Your task to perform on an android device: What's the weather going to be this weekend? Image 0: 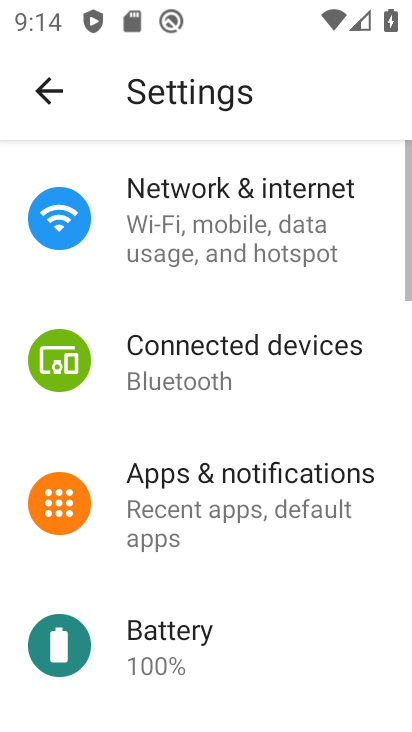
Step 0: press home button
Your task to perform on an android device: What's the weather going to be this weekend? Image 1: 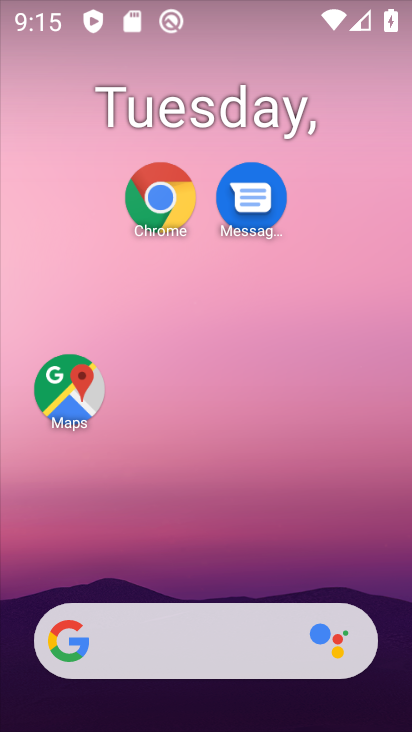
Step 1: drag from (221, 575) to (161, 16)
Your task to perform on an android device: What's the weather going to be this weekend? Image 2: 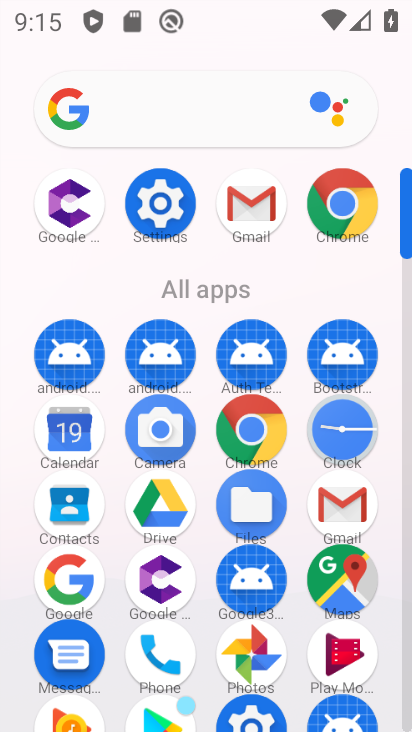
Step 2: click (68, 582)
Your task to perform on an android device: What's the weather going to be this weekend? Image 3: 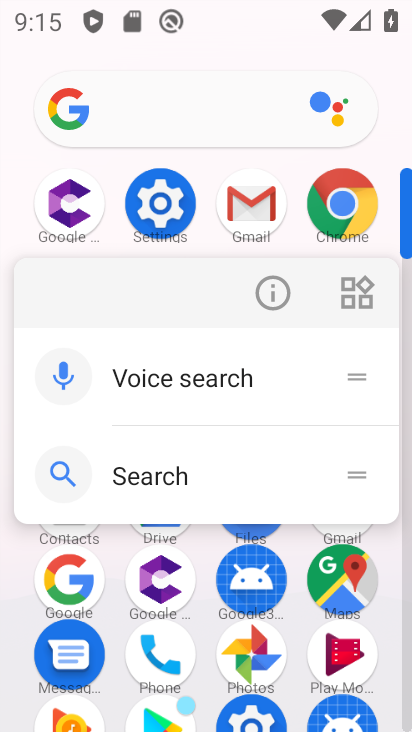
Step 3: click (68, 582)
Your task to perform on an android device: What's the weather going to be this weekend? Image 4: 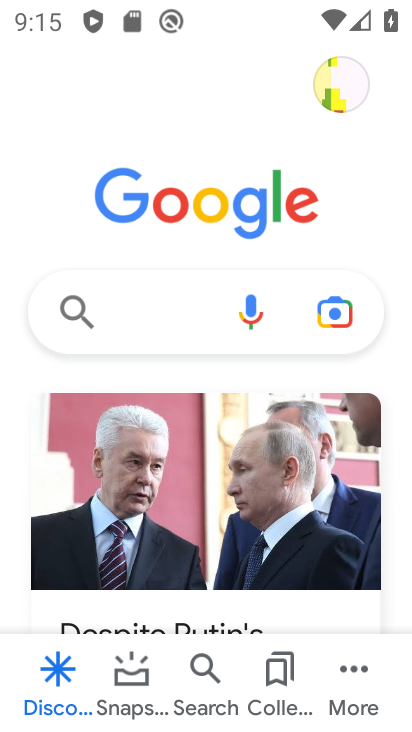
Step 4: click (167, 329)
Your task to perform on an android device: What's the weather going to be this weekend? Image 5: 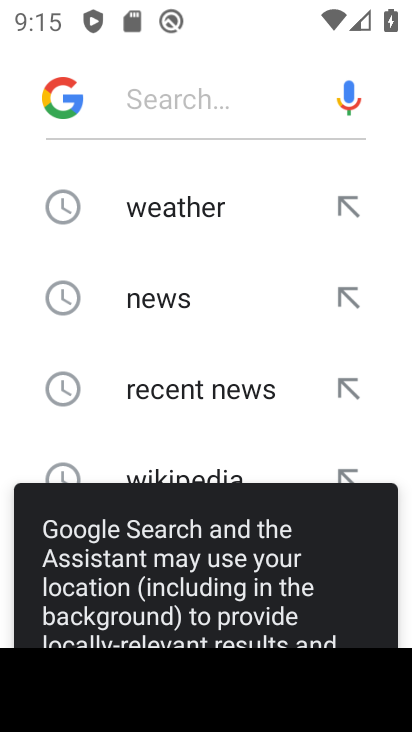
Step 5: click (173, 211)
Your task to perform on an android device: What's the weather going to be this weekend? Image 6: 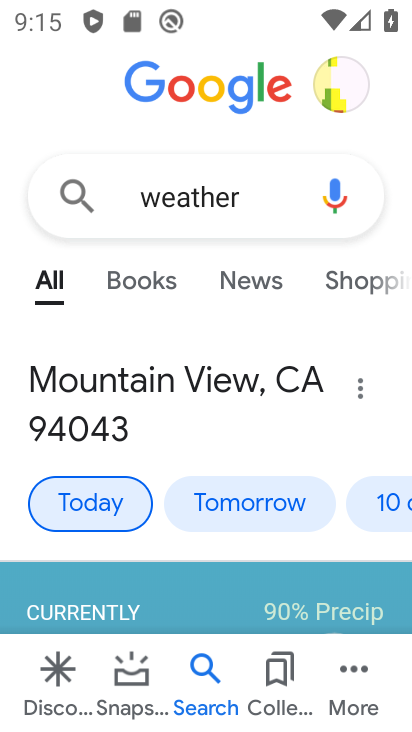
Step 6: task complete